Your task to perform on an android device: Open Google Maps and go to "Timeline" Image 0: 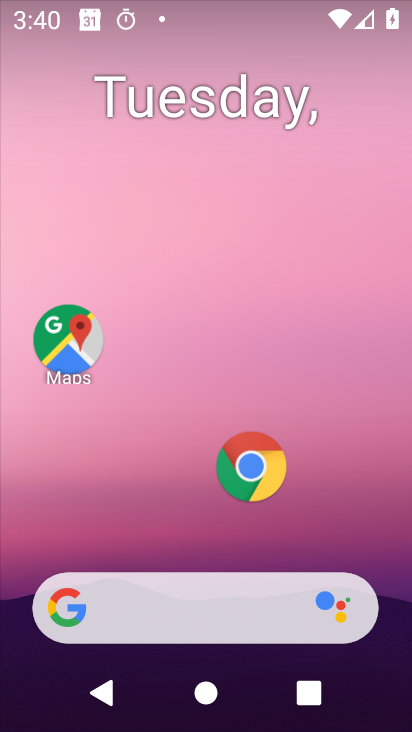
Step 0: click (71, 356)
Your task to perform on an android device: Open Google Maps and go to "Timeline" Image 1: 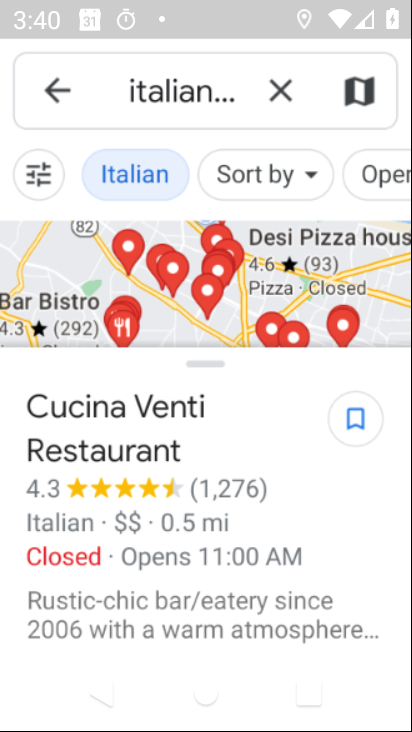
Step 1: click (62, 79)
Your task to perform on an android device: Open Google Maps and go to "Timeline" Image 2: 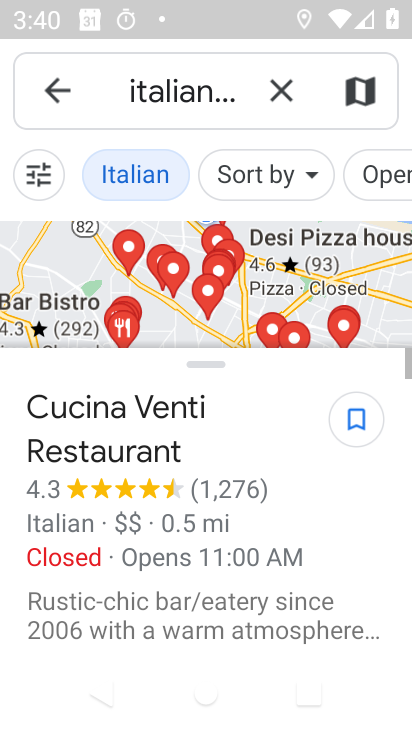
Step 2: click (58, 88)
Your task to perform on an android device: Open Google Maps and go to "Timeline" Image 3: 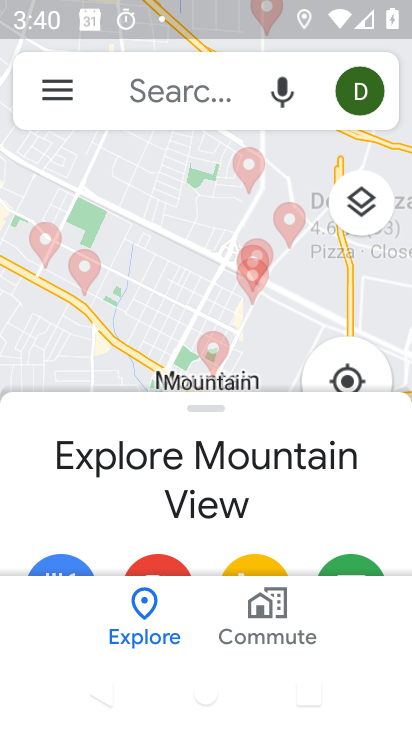
Step 3: click (58, 88)
Your task to perform on an android device: Open Google Maps and go to "Timeline" Image 4: 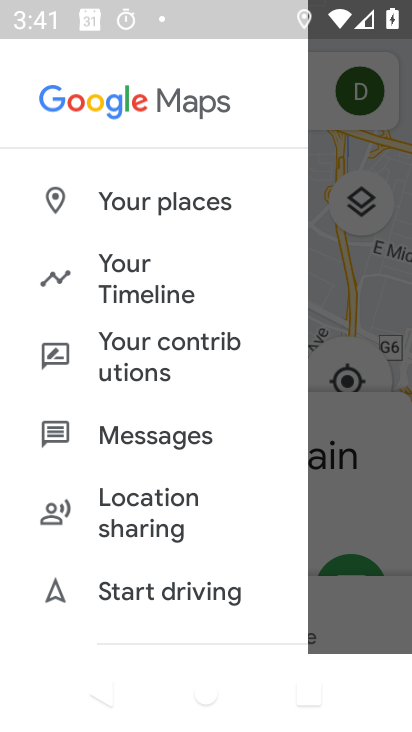
Step 4: click (122, 282)
Your task to perform on an android device: Open Google Maps and go to "Timeline" Image 5: 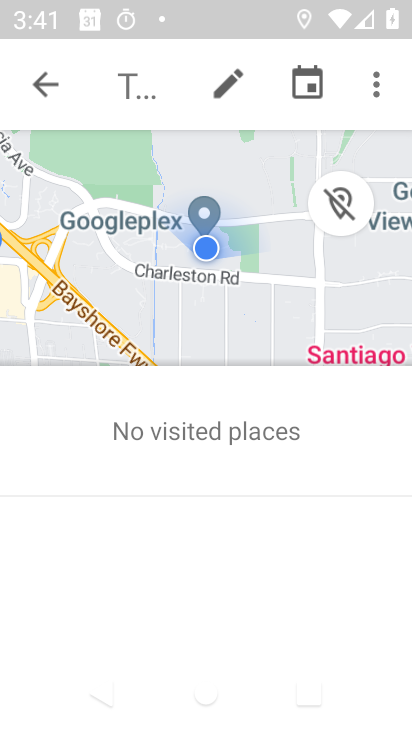
Step 5: task complete